Your task to perform on an android device: turn on sleep mode Image 0: 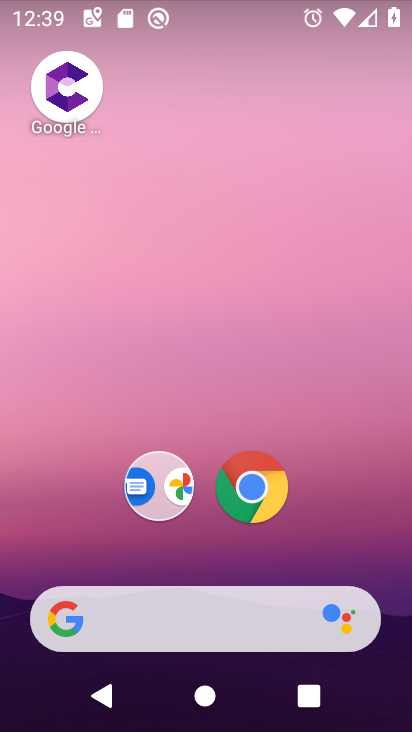
Step 0: drag from (273, 663) to (210, 191)
Your task to perform on an android device: turn on sleep mode Image 1: 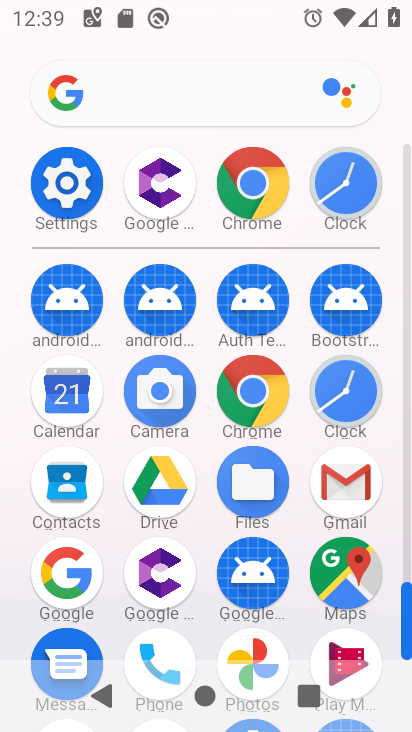
Step 1: click (66, 181)
Your task to perform on an android device: turn on sleep mode Image 2: 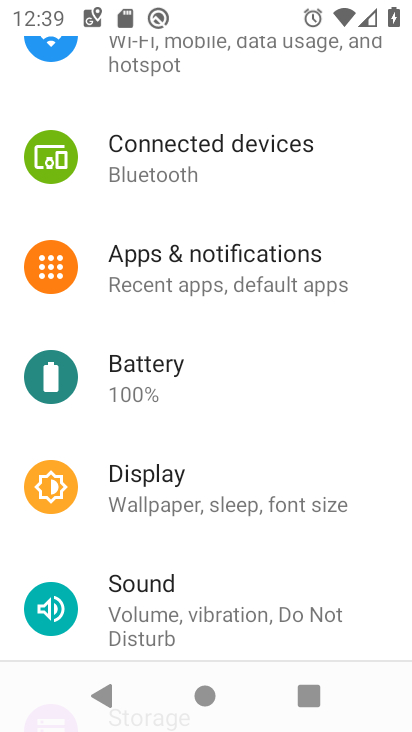
Step 2: drag from (133, 239) to (262, 436)
Your task to perform on an android device: turn on sleep mode Image 3: 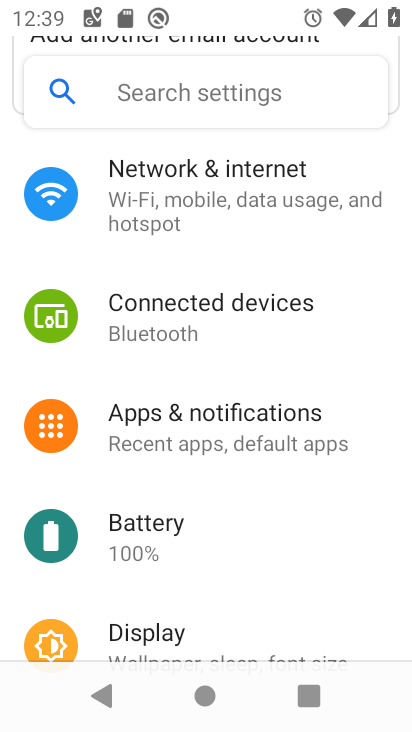
Step 3: drag from (177, 241) to (188, 420)
Your task to perform on an android device: turn on sleep mode Image 4: 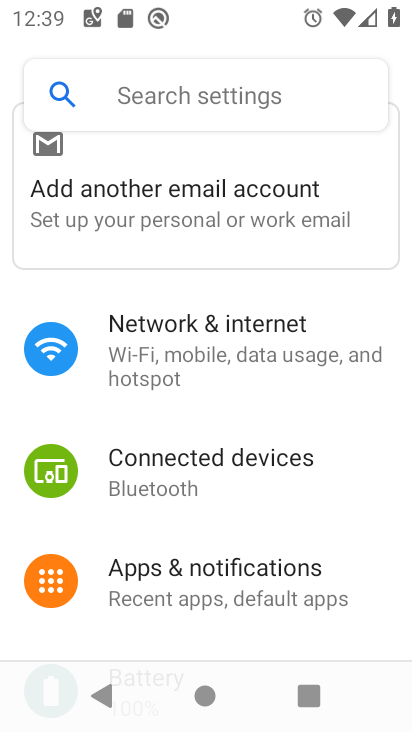
Step 4: click (121, 95)
Your task to perform on an android device: turn on sleep mode Image 5: 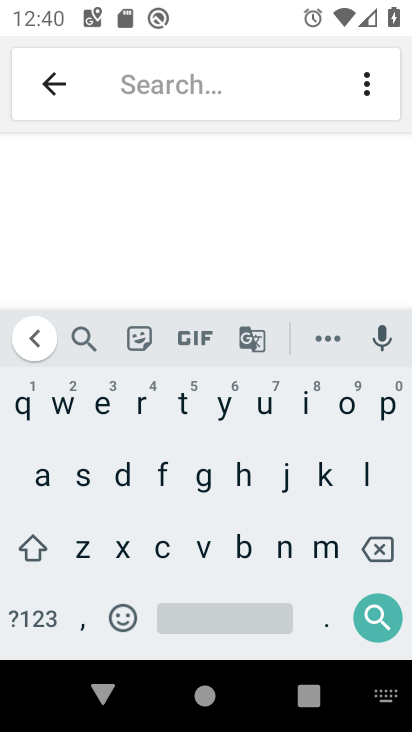
Step 5: click (85, 472)
Your task to perform on an android device: turn on sleep mode Image 6: 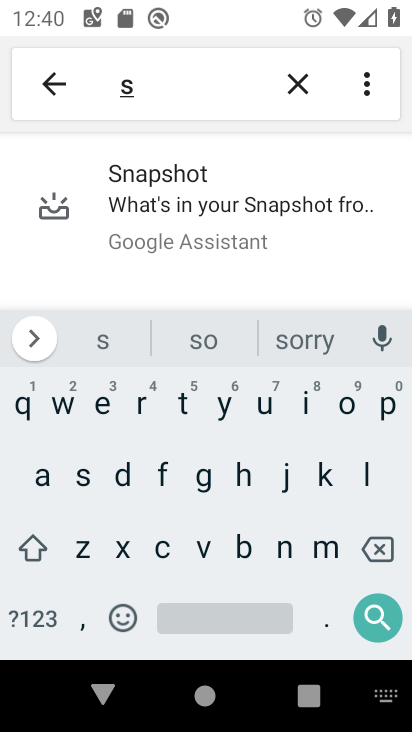
Step 6: click (366, 473)
Your task to perform on an android device: turn on sleep mode Image 7: 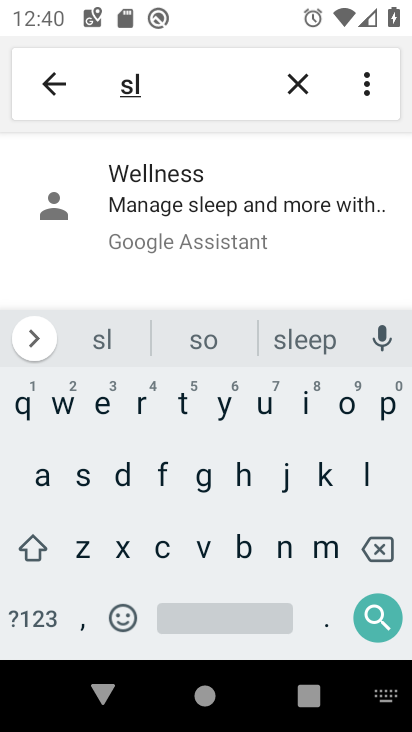
Step 7: click (152, 217)
Your task to perform on an android device: turn on sleep mode Image 8: 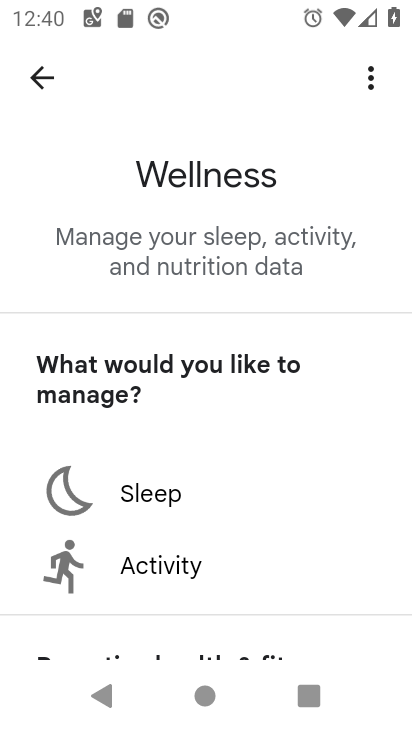
Step 8: click (142, 486)
Your task to perform on an android device: turn on sleep mode Image 9: 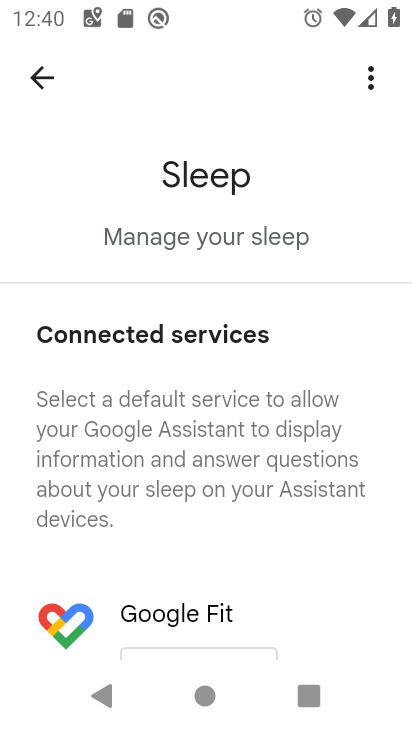
Step 9: task complete